Your task to perform on an android device: find photos in the google photos app Image 0: 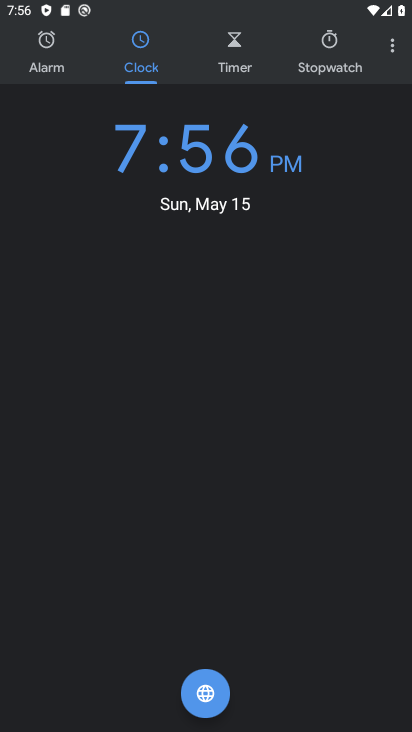
Step 0: press home button
Your task to perform on an android device: find photos in the google photos app Image 1: 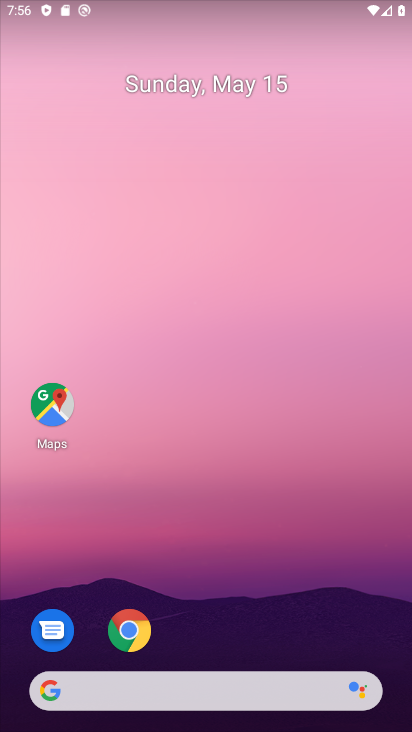
Step 1: drag from (227, 646) to (321, 92)
Your task to perform on an android device: find photos in the google photos app Image 2: 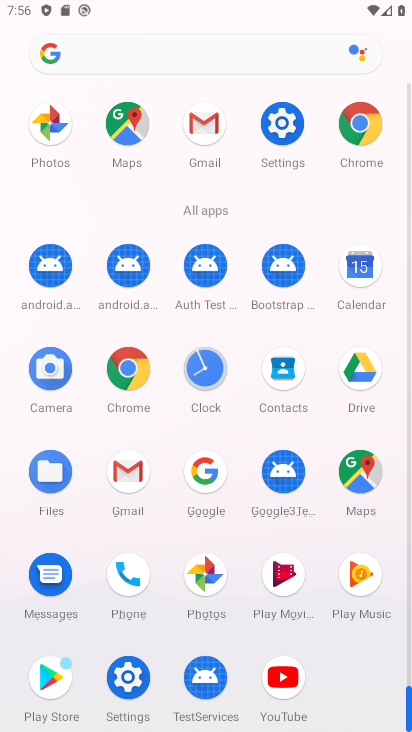
Step 2: click (217, 579)
Your task to perform on an android device: find photos in the google photos app Image 3: 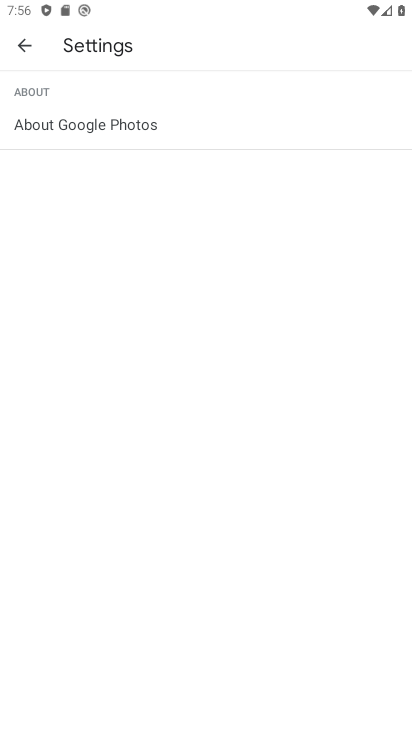
Step 3: click (16, 45)
Your task to perform on an android device: find photos in the google photos app Image 4: 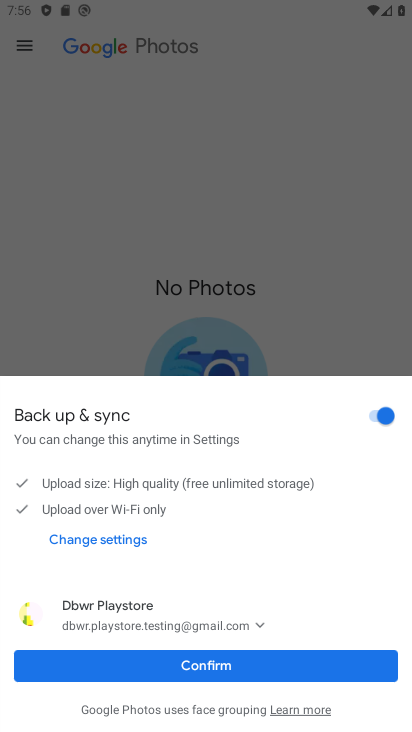
Step 4: click (212, 672)
Your task to perform on an android device: find photos in the google photos app Image 5: 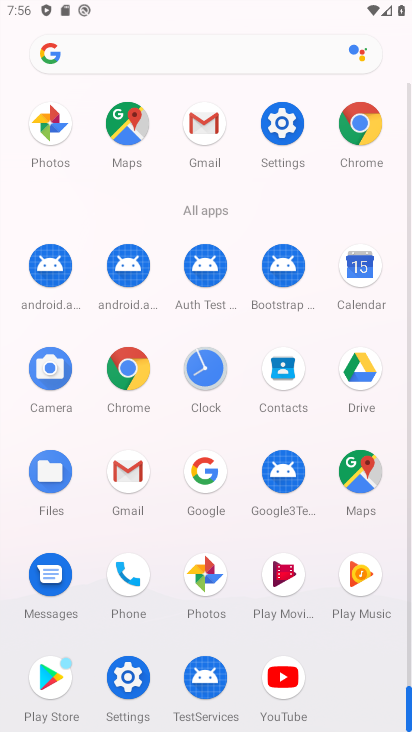
Step 5: click (218, 589)
Your task to perform on an android device: find photos in the google photos app Image 6: 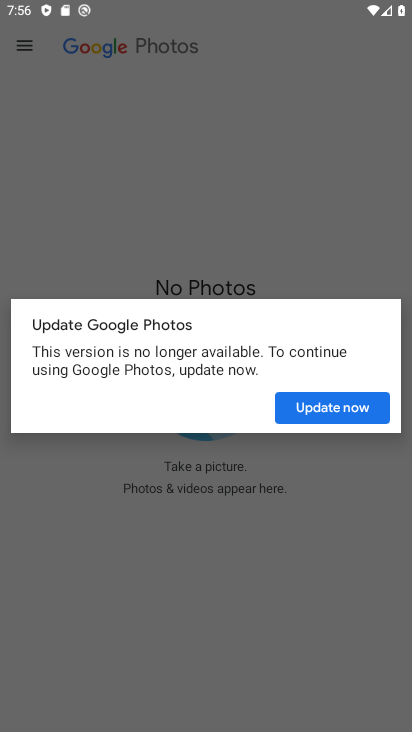
Step 6: click (338, 413)
Your task to perform on an android device: find photos in the google photos app Image 7: 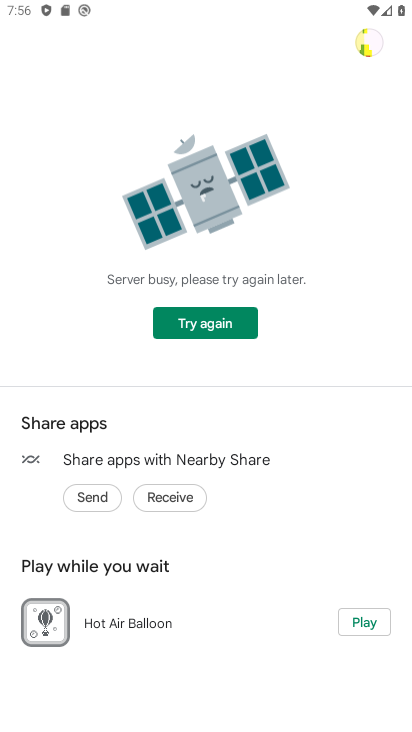
Step 7: press back button
Your task to perform on an android device: find photos in the google photos app Image 8: 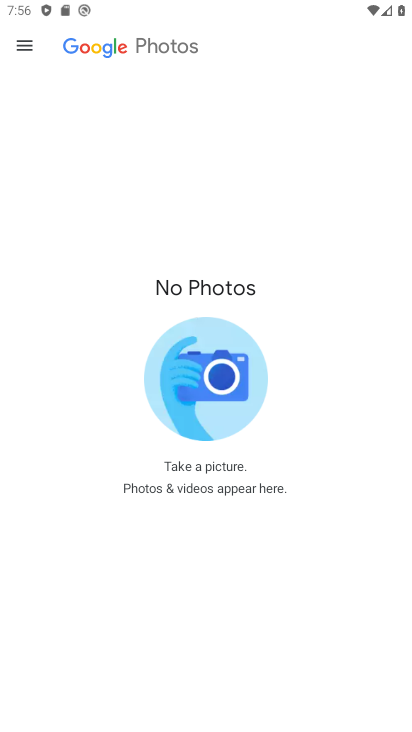
Step 8: drag from (207, 294) to (226, 609)
Your task to perform on an android device: find photos in the google photos app Image 9: 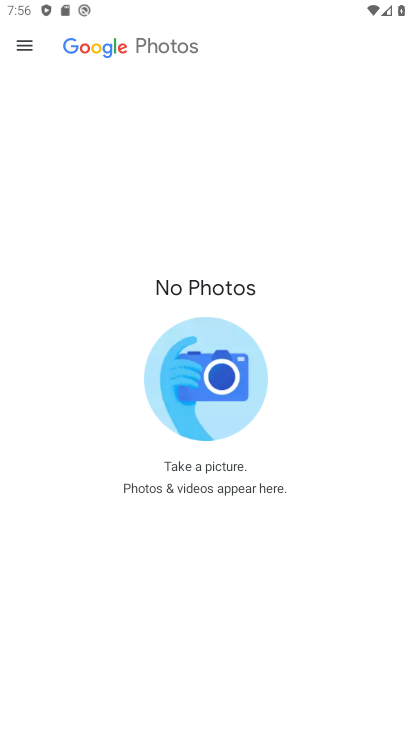
Step 9: click (23, 50)
Your task to perform on an android device: find photos in the google photos app Image 10: 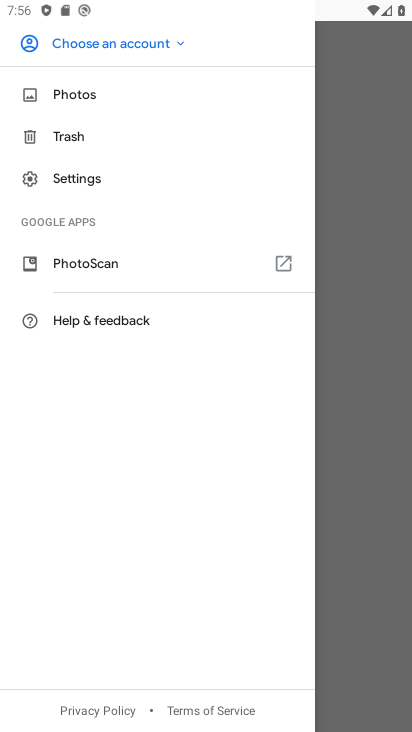
Step 10: click (76, 91)
Your task to perform on an android device: find photos in the google photos app Image 11: 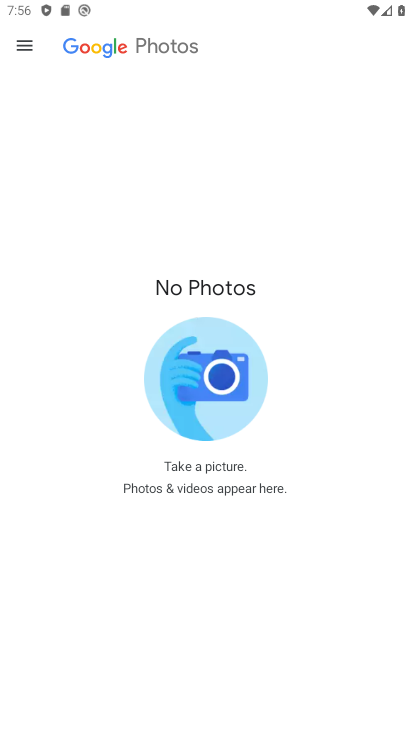
Step 11: task complete